Your task to perform on an android device: turn on wifi Image 0: 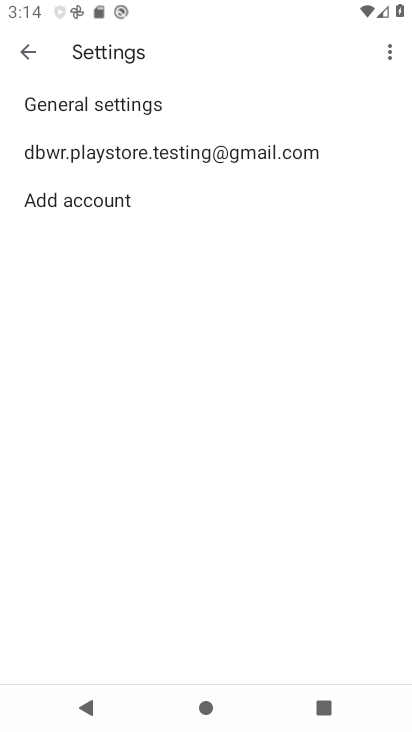
Step 0: press home button
Your task to perform on an android device: turn on wifi Image 1: 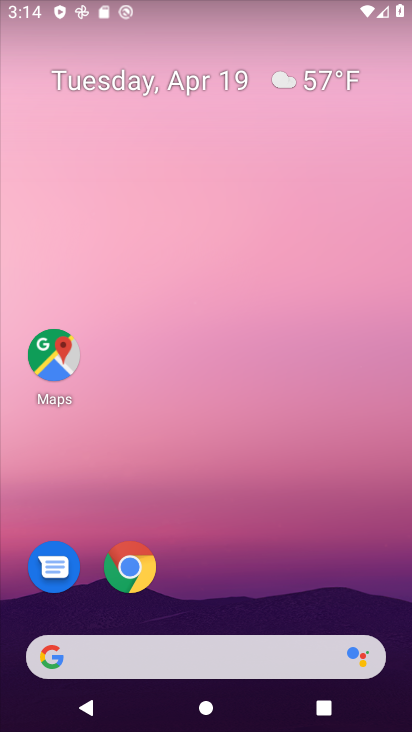
Step 1: drag from (381, 590) to (385, 155)
Your task to perform on an android device: turn on wifi Image 2: 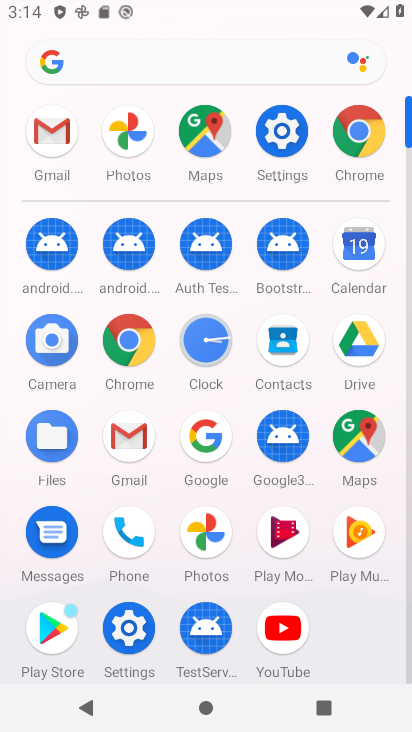
Step 2: click (281, 139)
Your task to perform on an android device: turn on wifi Image 3: 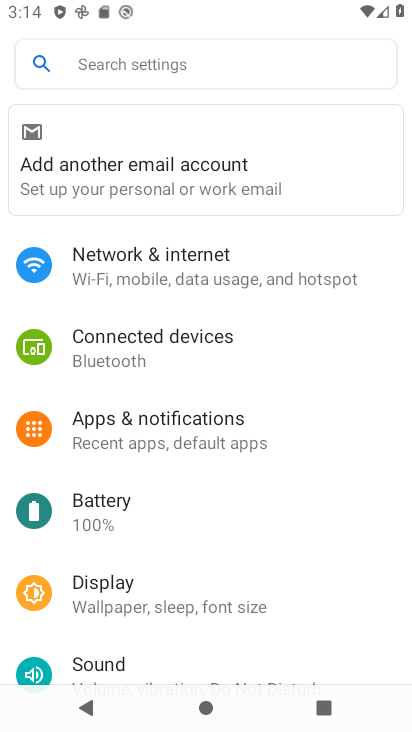
Step 3: drag from (332, 531) to (350, 358)
Your task to perform on an android device: turn on wifi Image 4: 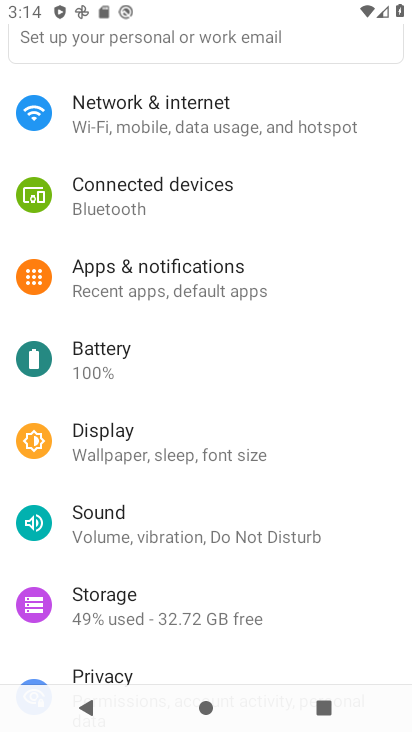
Step 4: drag from (350, 584) to (358, 358)
Your task to perform on an android device: turn on wifi Image 5: 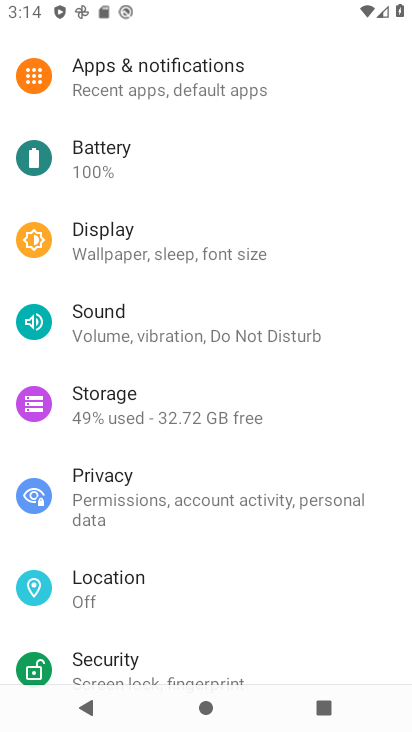
Step 5: drag from (356, 613) to (372, 351)
Your task to perform on an android device: turn on wifi Image 6: 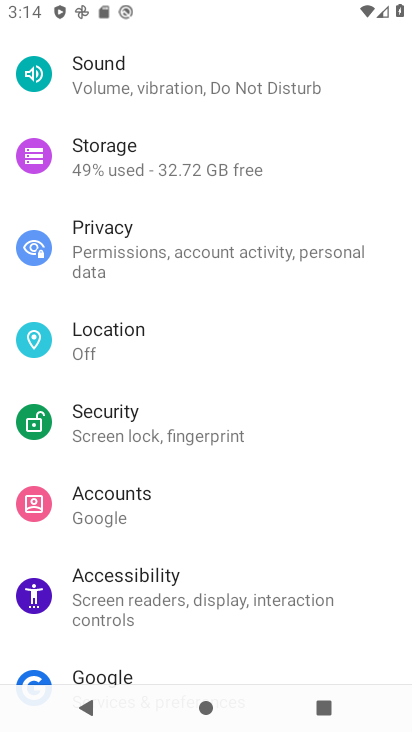
Step 6: drag from (356, 630) to (358, 330)
Your task to perform on an android device: turn on wifi Image 7: 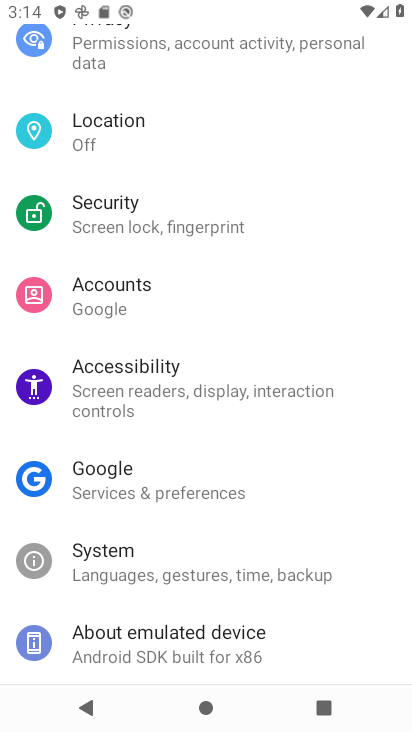
Step 7: drag from (357, 633) to (368, 325)
Your task to perform on an android device: turn on wifi Image 8: 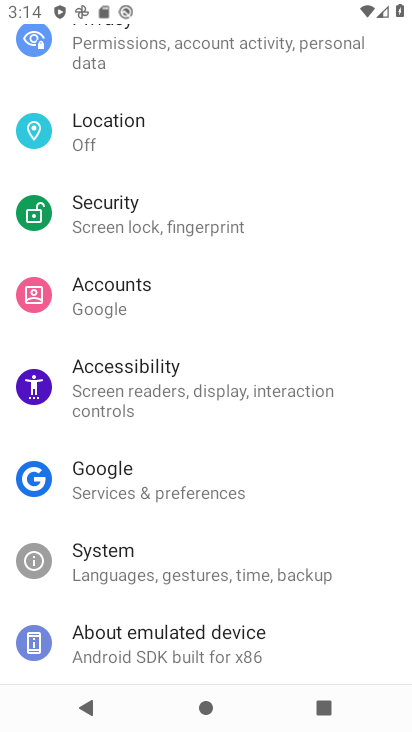
Step 8: drag from (379, 278) to (360, 512)
Your task to perform on an android device: turn on wifi Image 9: 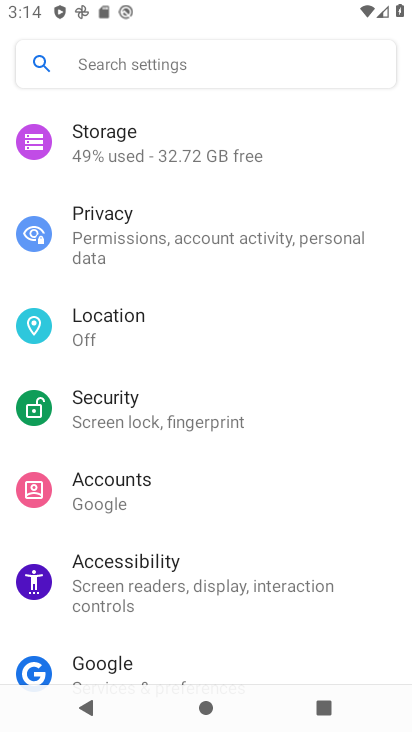
Step 9: drag from (358, 335) to (336, 528)
Your task to perform on an android device: turn on wifi Image 10: 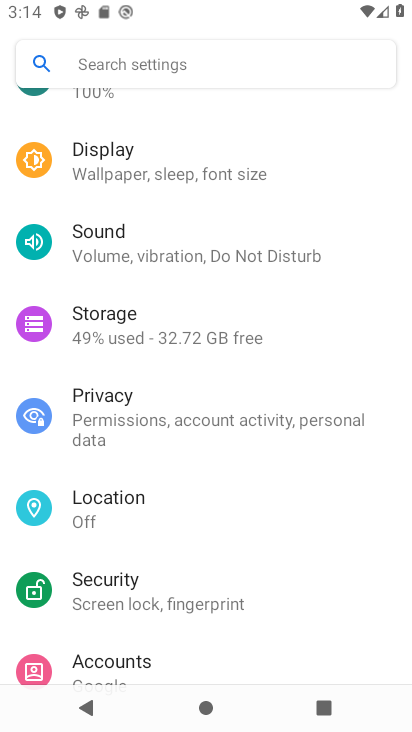
Step 10: drag from (377, 306) to (379, 524)
Your task to perform on an android device: turn on wifi Image 11: 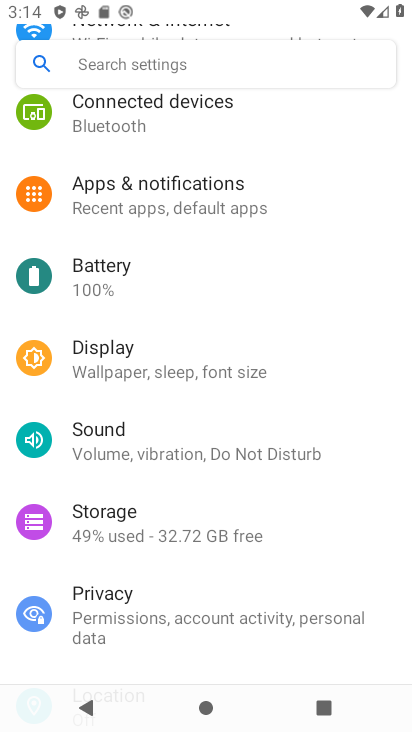
Step 11: drag from (382, 316) to (355, 510)
Your task to perform on an android device: turn on wifi Image 12: 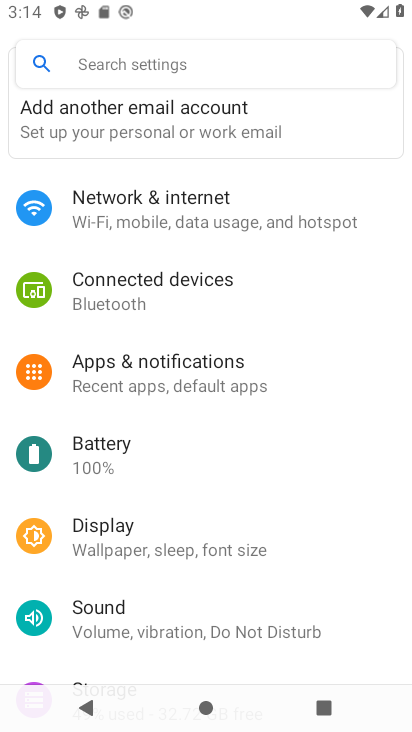
Step 12: click (222, 202)
Your task to perform on an android device: turn on wifi Image 13: 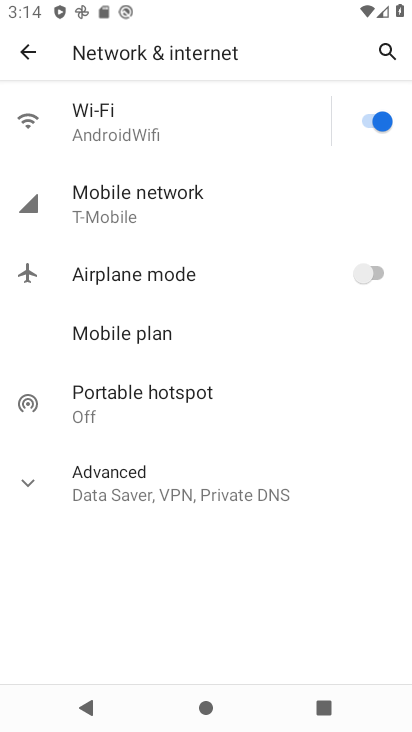
Step 13: task complete